Your task to perform on an android device: open a new tab in the chrome app Image 0: 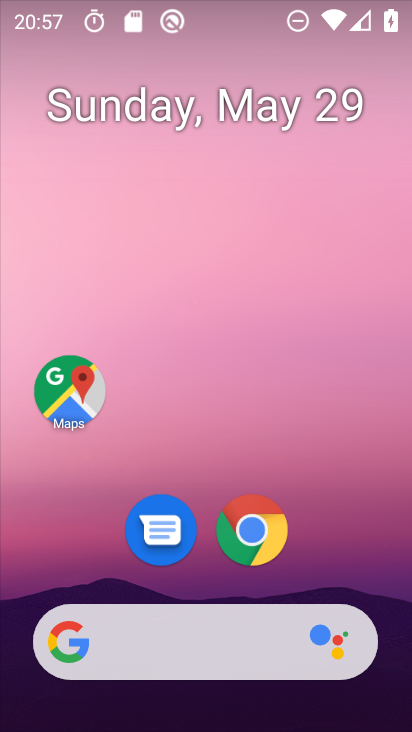
Step 0: drag from (202, 676) to (382, 146)
Your task to perform on an android device: open a new tab in the chrome app Image 1: 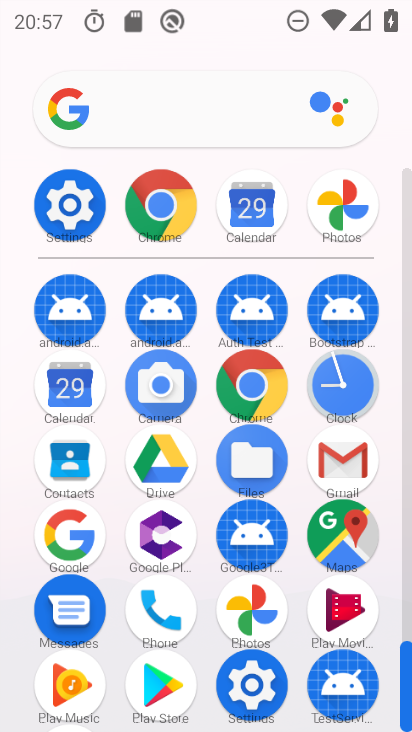
Step 1: click (199, 214)
Your task to perform on an android device: open a new tab in the chrome app Image 2: 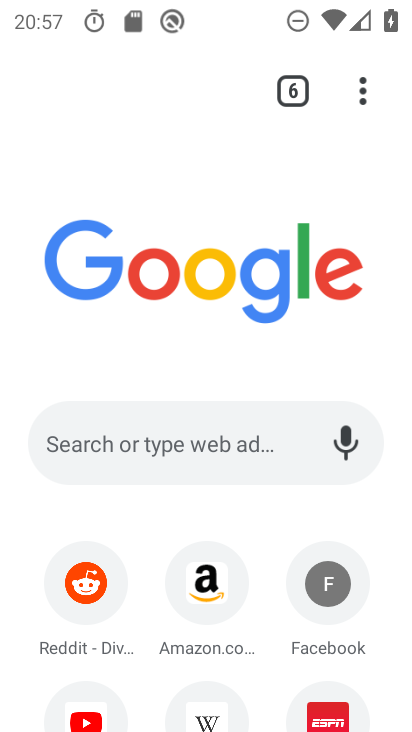
Step 2: click (358, 101)
Your task to perform on an android device: open a new tab in the chrome app Image 3: 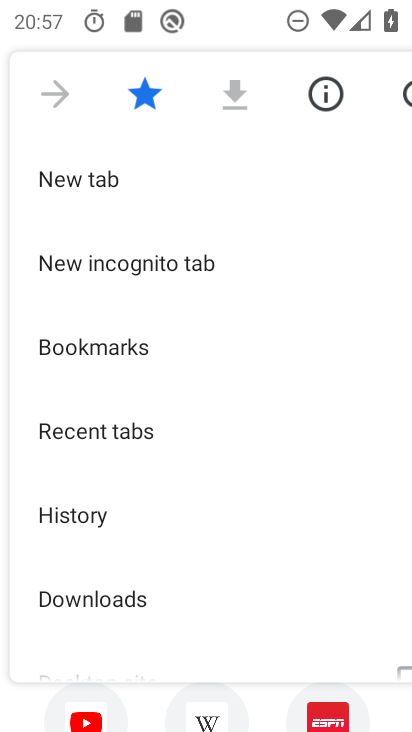
Step 3: click (95, 193)
Your task to perform on an android device: open a new tab in the chrome app Image 4: 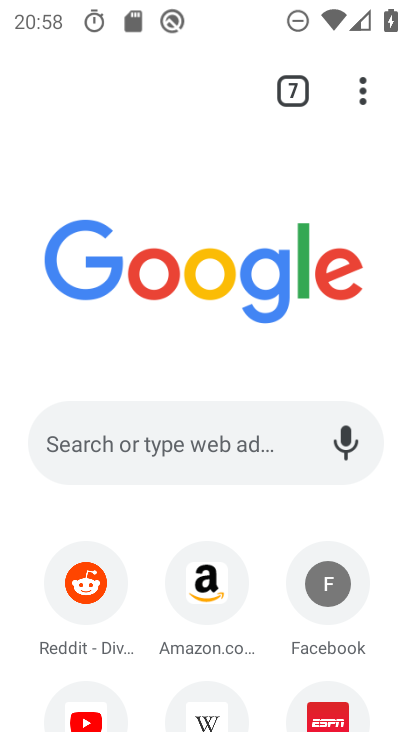
Step 4: task complete